Your task to perform on an android device: open a bookmark in the chrome app Image 0: 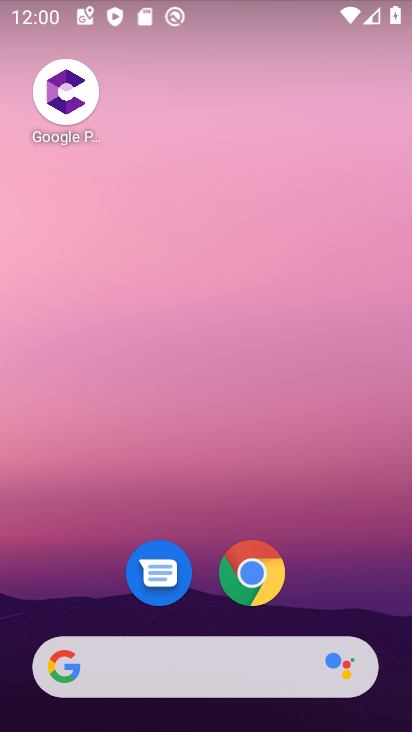
Step 0: click (237, 589)
Your task to perform on an android device: open a bookmark in the chrome app Image 1: 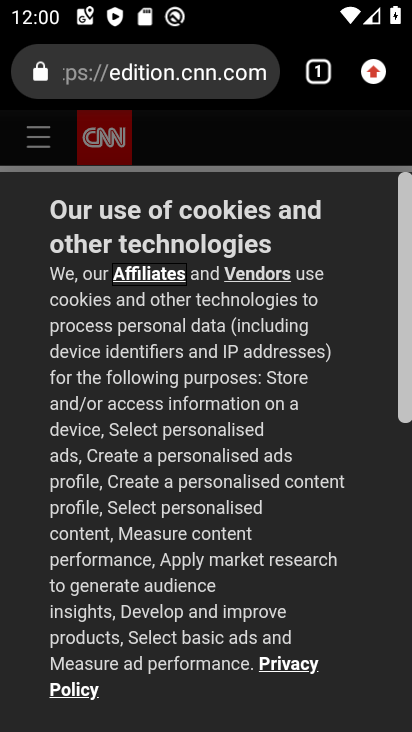
Step 1: click (359, 74)
Your task to perform on an android device: open a bookmark in the chrome app Image 2: 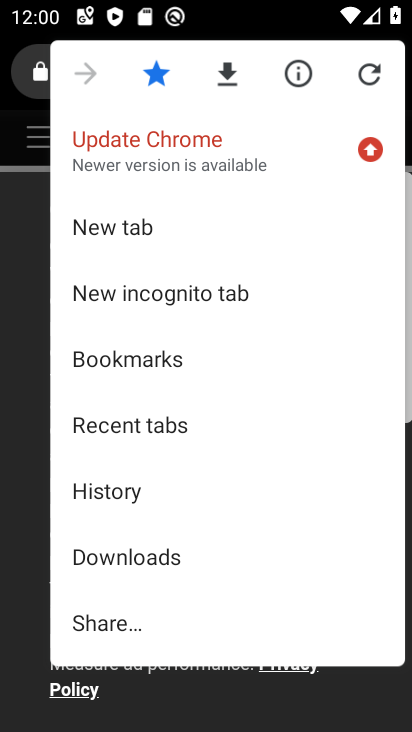
Step 2: click (206, 369)
Your task to perform on an android device: open a bookmark in the chrome app Image 3: 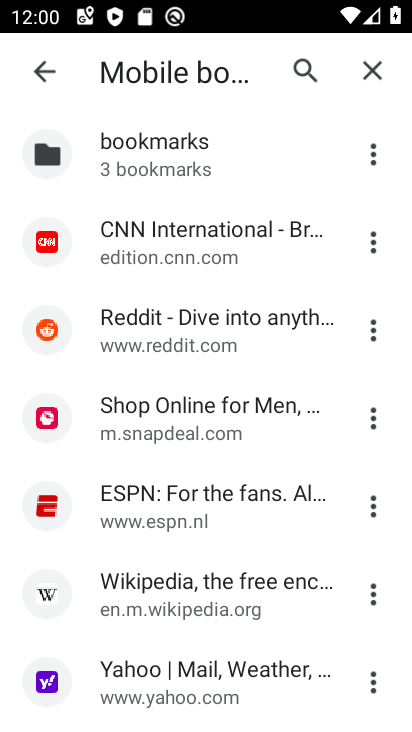
Step 3: click (206, 369)
Your task to perform on an android device: open a bookmark in the chrome app Image 4: 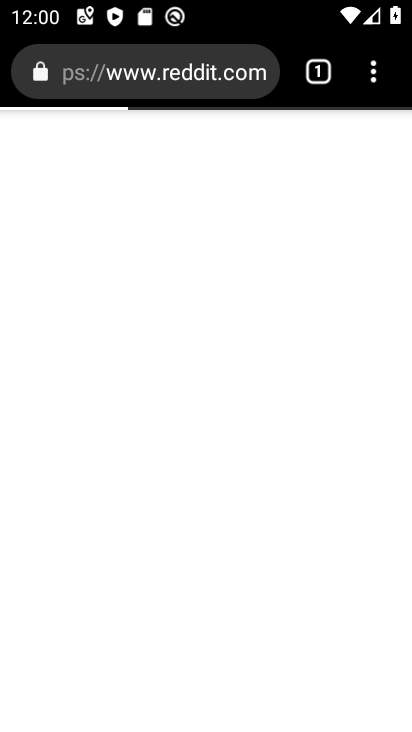
Step 4: click (220, 339)
Your task to perform on an android device: open a bookmark in the chrome app Image 5: 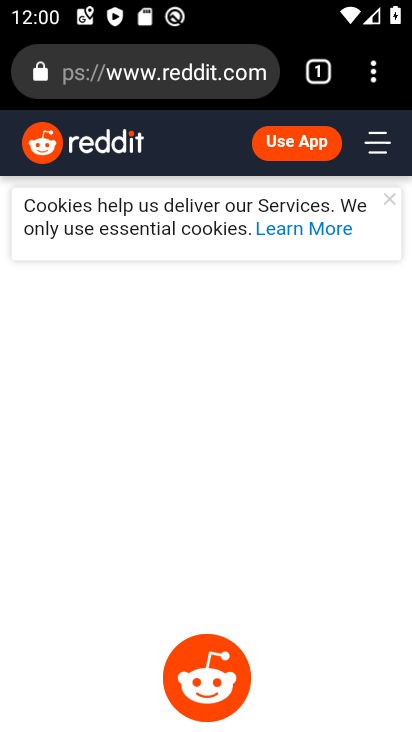
Step 5: task complete